Your task to perform on an android device: open app "Lyft - Rideshare, Bikes, Scooters & Transit" Image 0: 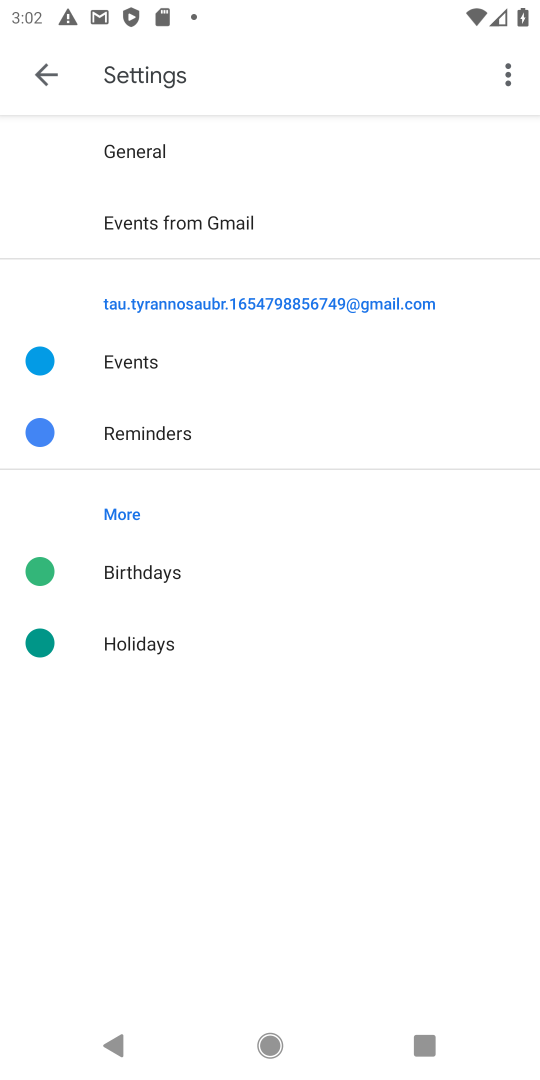
Step 0: press home button
Your task to perform on an android device: open app "Lyft - Rideshare, Bikes, Scooters & Transit" Image 1: 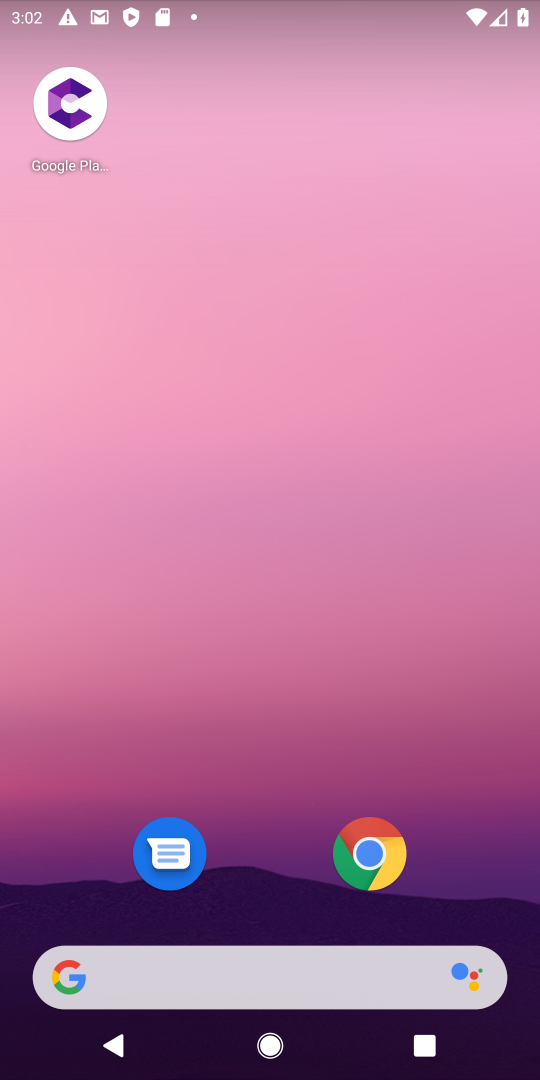
Step 1: drag from (299, 1077) to (299, 83)
Your task to perform on an android device: open app "Lyft - Rideshare, Bikes, Scooters & Transit" Image 2: 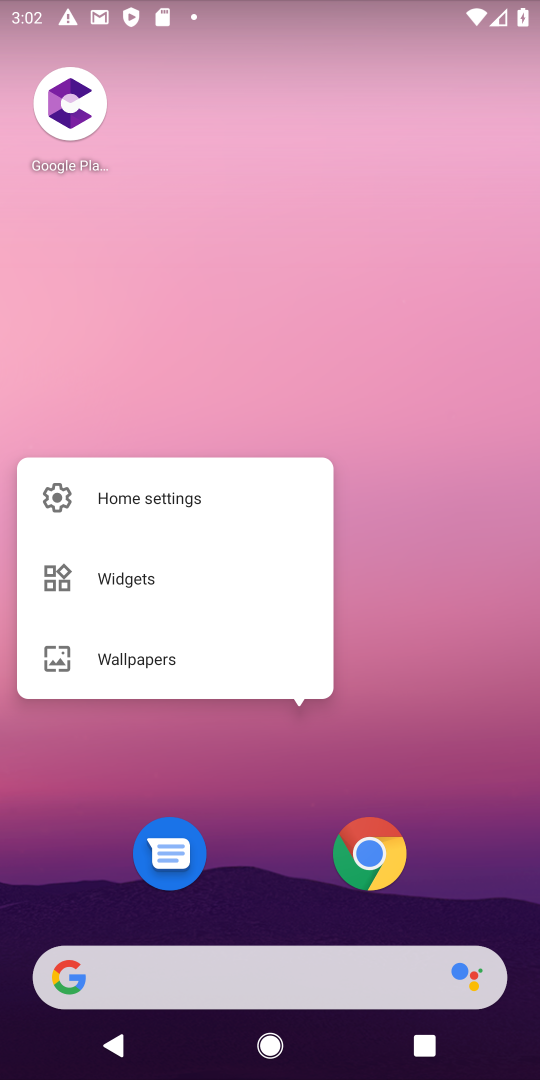
Step 2: click (342, 296)
Your task to perform on an android device: open app "Lyft - Rideshare, Bikes, Scooters & Transit" Image 3: 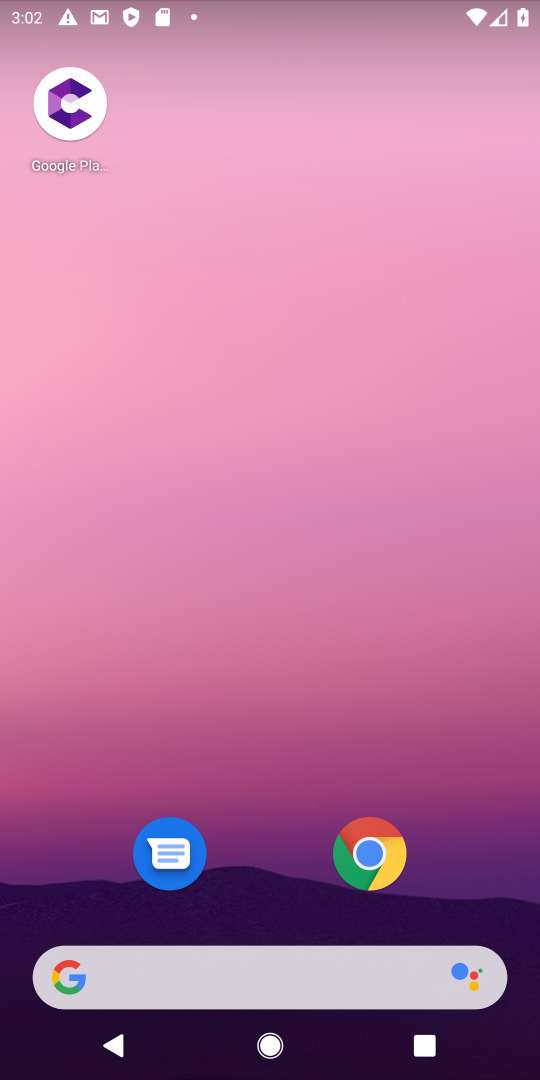
Step 3: drag from (302, 1062) to (248, 32)
Your task to perform on an android device: open app "Lyft - Rideshare, Bikes, Scooters & Transit" Image 4: 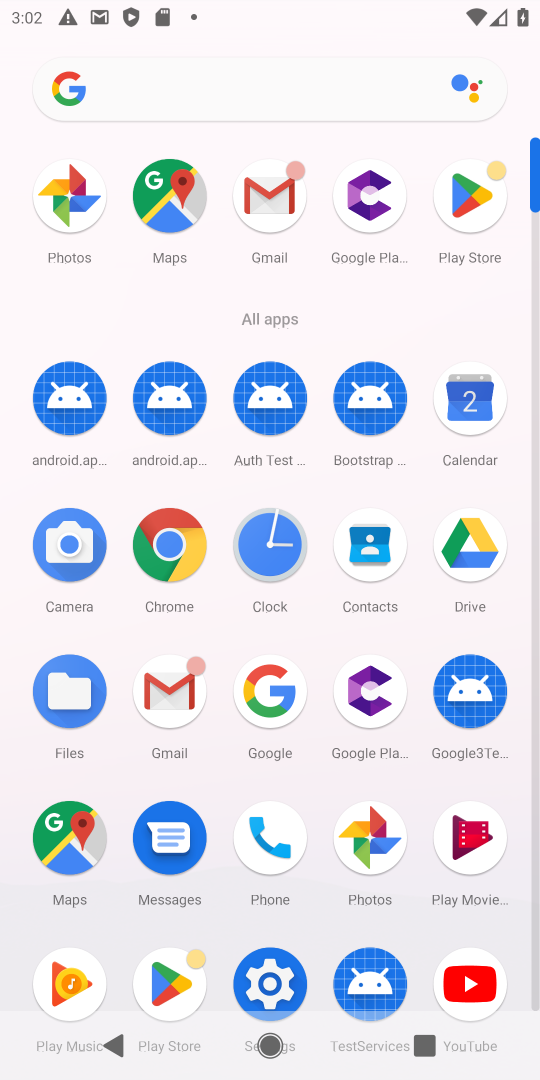
Step 4: click (486, 201)
Your task to perform on an android device: open app "Lyft - Rideshare, Bikes, Scooters & Transit" Image 5: 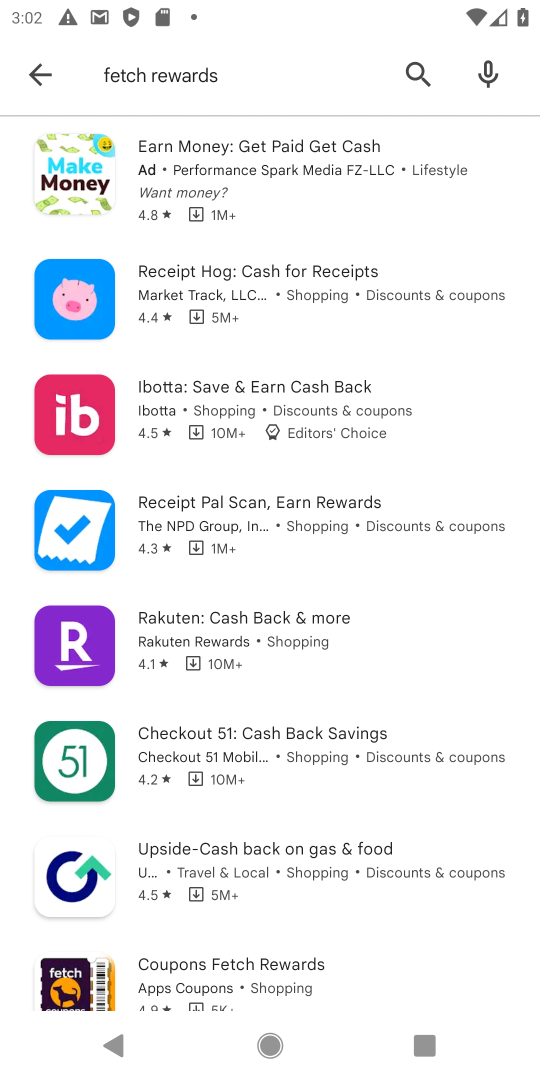
Step 5: click (413, 60)
Your task to perform on an android device: open app "Lyft - Rideshare, Bikes, Scooters & Transit" Image 6: 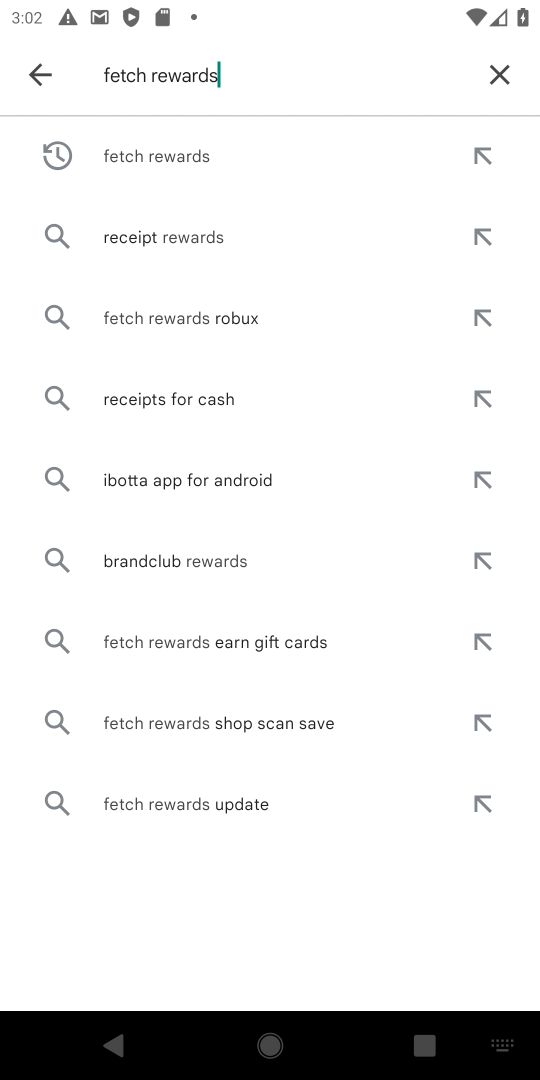
Step 6: click (517, 72)
Your task to perform on an android device: open app "Lyft - Rideshare, Bikes, Scooters & Transit" Image 7: 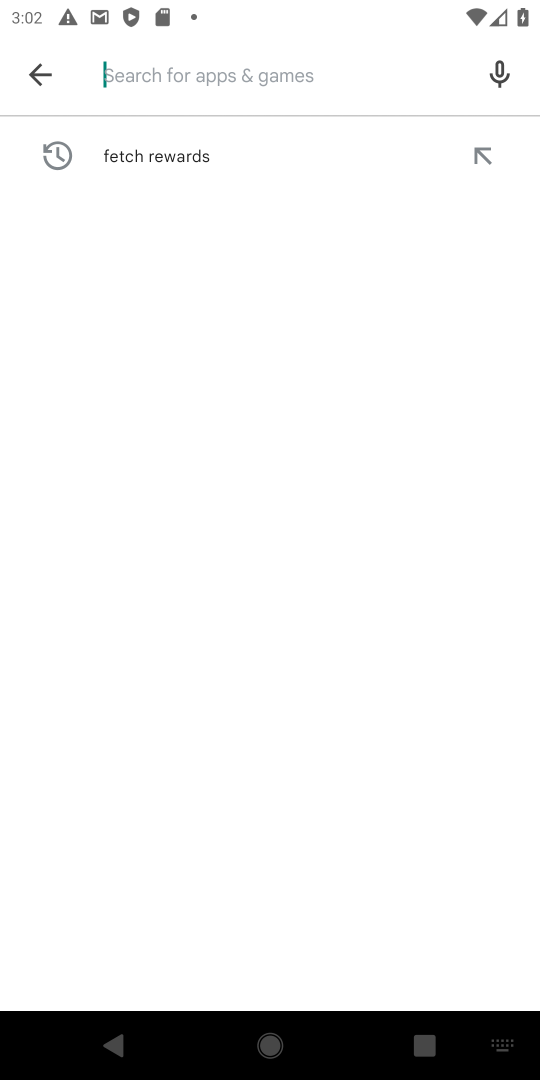
Step 7: type "Lyft - Rideshare, Bikes, Scooters & Transit"
Your task to perform on an android device: open app "Lyft - Rideshare, Bikes, Scooters & Transit" Image 8: 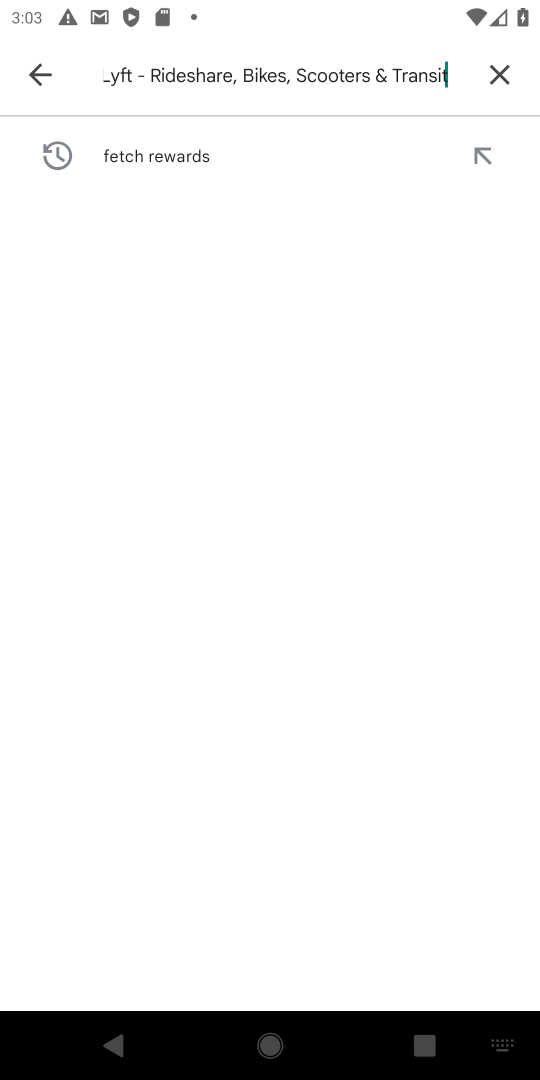
Step 8: type ""
Your task to perform on an android device: open app "Lyft - Rideshare, Bikes, Scooters & Transit" Image 9: 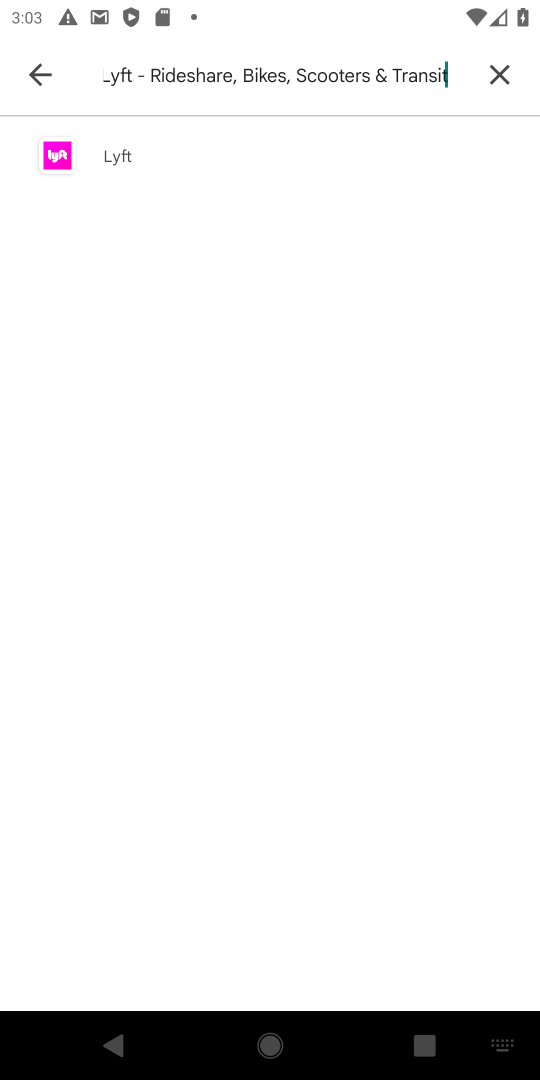
Step 9: click (116, 153)
Your task to perform on an android device: open app "Lyft - Rideshare, Bikes, Scooters & Transit" Image 10: 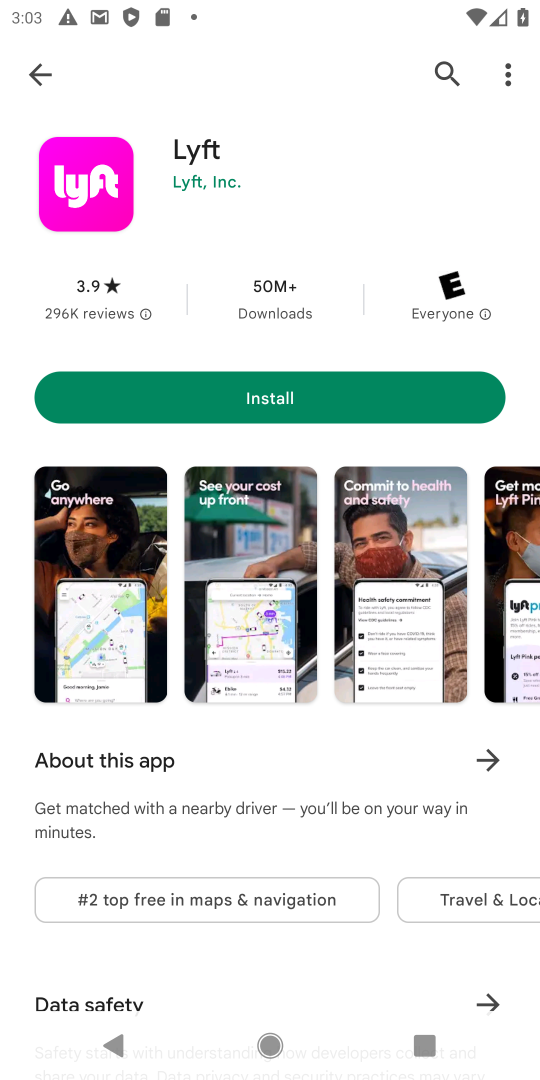
Step 10: task complete